Your task to perform on an android device: Open settings on Google Maps Image 0: 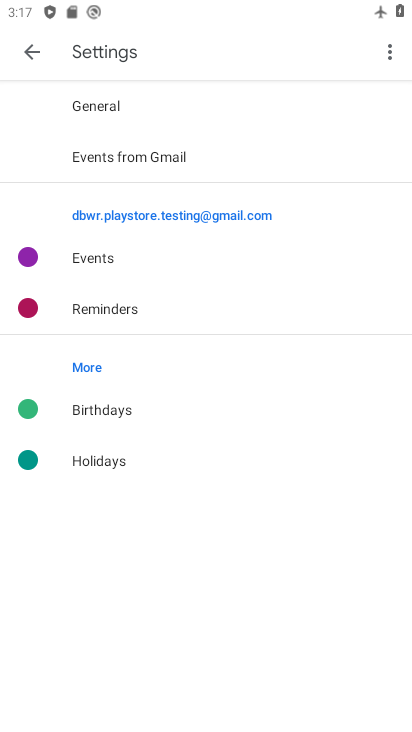
Step 0: press home button
Your task to perform on an android device: Open settings on Google Maps Image 1: 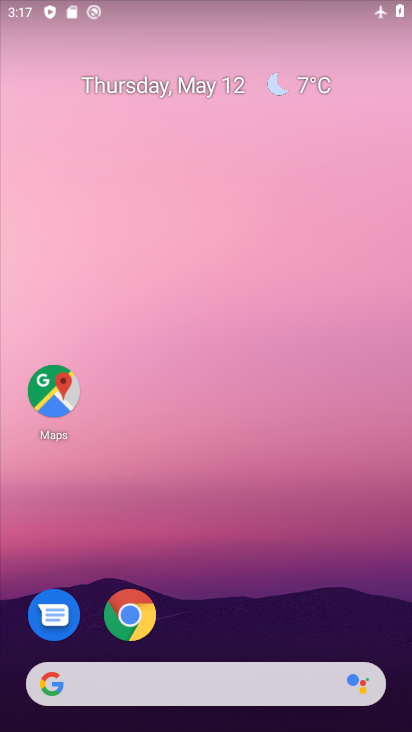
Step 1: drag from (298, 613) to (225, 26)
Your task to perform on an android device: Open settings on Google Maps Image 2: 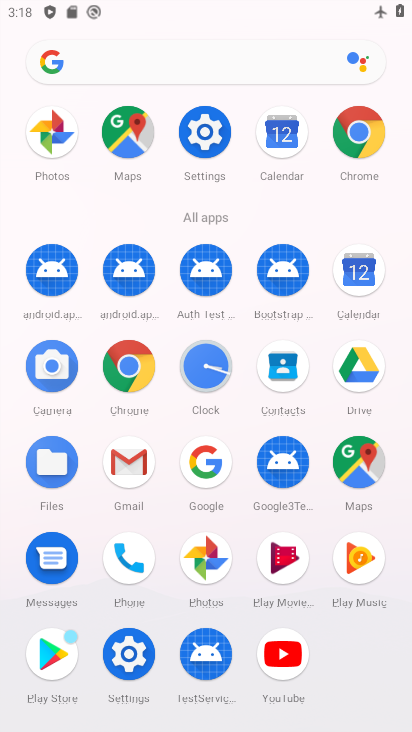
Step 2: click (359, 469)
Your task to perform on an android device: Open settings on Google Maps Image 3: 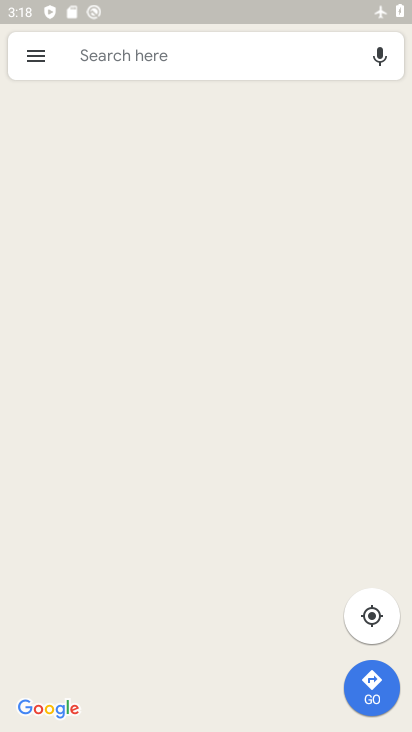
Step 3: click (39, 46)
Your task to perform on an android device: Open settings on Google Maps Image 4: 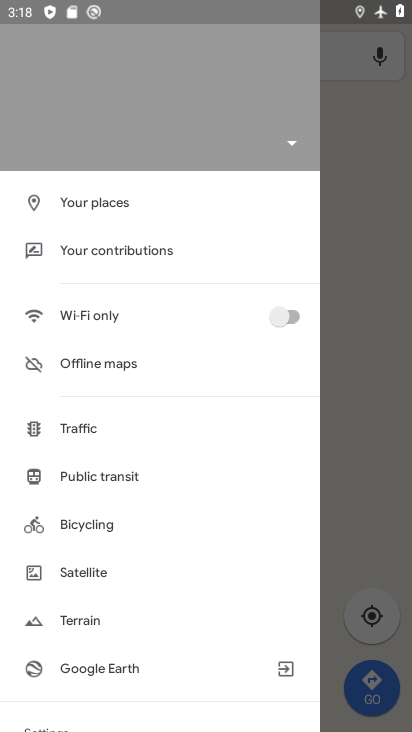
Step 4: drag from (136, 618) to (118, 227)
Your task to perform on an android device: Open settings on Google Maps Image 5: 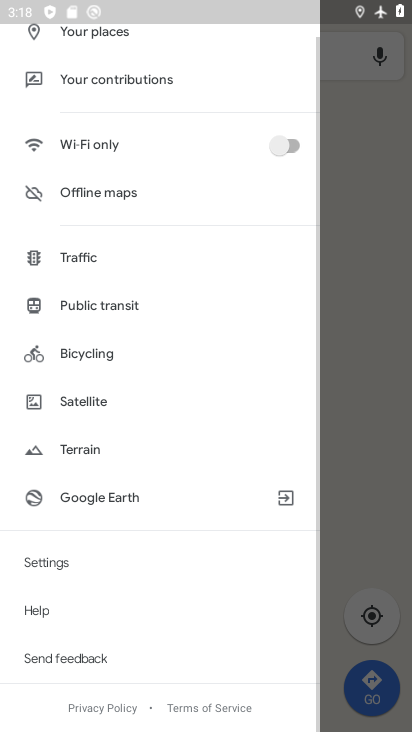
Step 5: click (82, 560)
Your task to perform on an android device: Open settings on Google Maps Image 6: 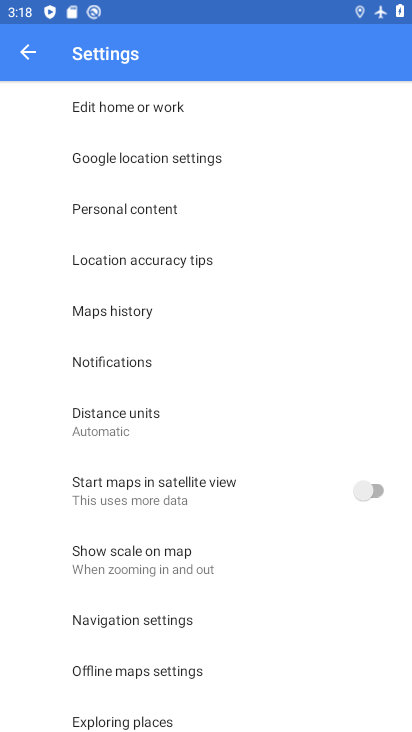
Step 6: task complete